Your task to perform on an android device: Open Youtube and go to "Your channel" Image 0: 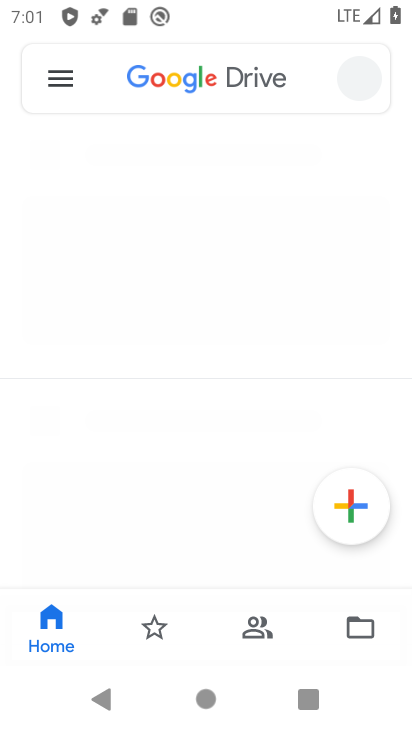
Step 0: press home button
Your task to perform on an android device: Open Youtube and go to "Your channel" Image 1: 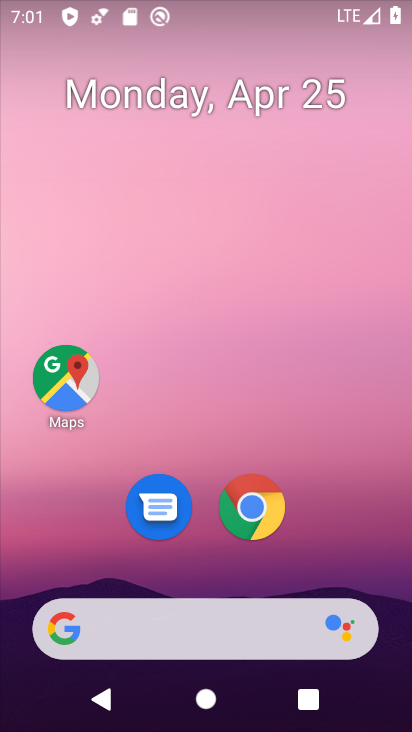
Step 1: drag from (342, 519) to (261, 61)
Your task to perform on an android device: Open Youtube and go to "Your channel" Image 2: 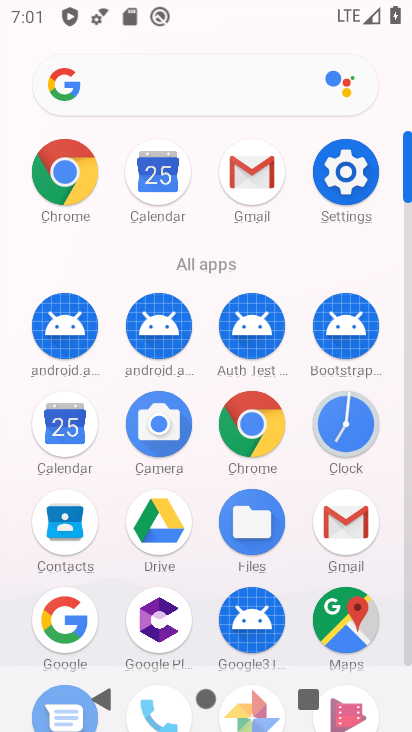
Step 2: drag from (408, 174) to (409, 714)
Your task to perform on an android device: Open Youtube and go to "Your channel" Image 3: 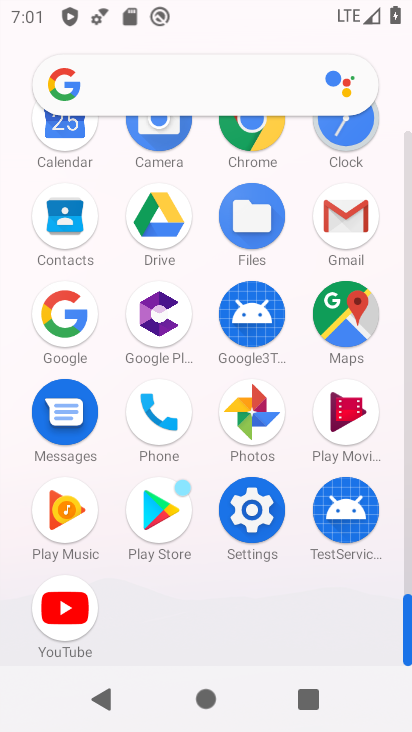
Step 3: click (62, 612)
Your task to perform on an android device: Open Youtube and go to "Your channel" Image 4: 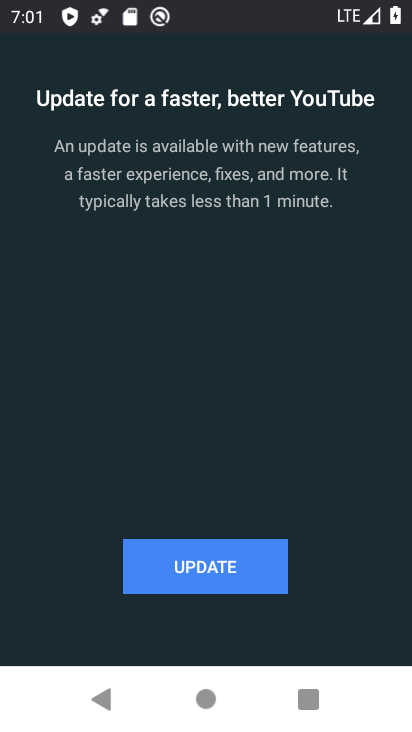
Step 4: click (211, 582)
Your task to perform on an android device: Open Youtube and go to "Your channel" Image 5: 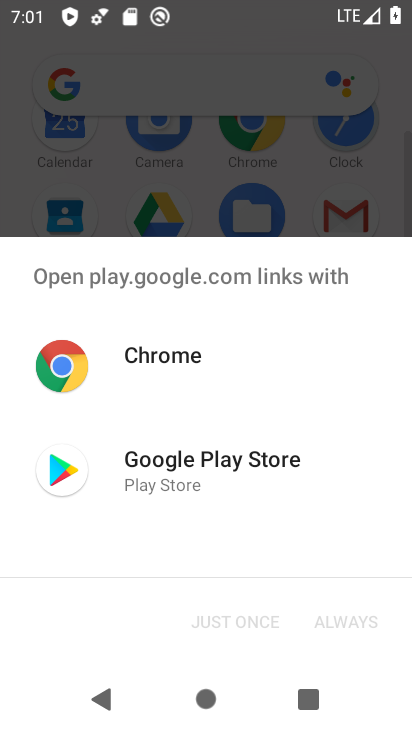
Step 5: click (172, 489)
Your task to perform on an android device: Open Youtube and go to "Your channel" Image 6: 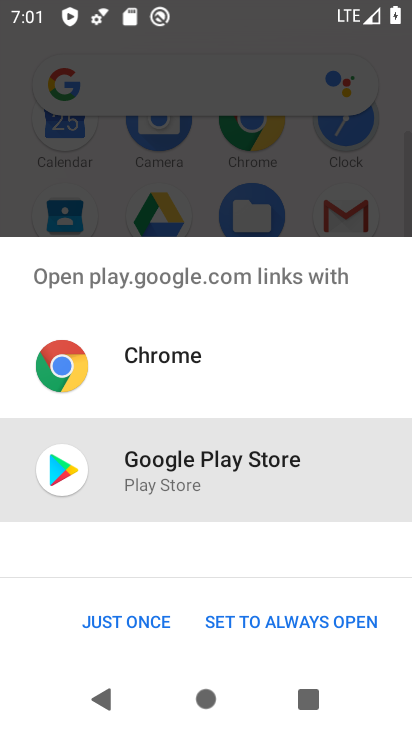
Step 6: click (145, 613)
Your task to perform on an android device: Open Youtube and go to "Your channel" Image 7: 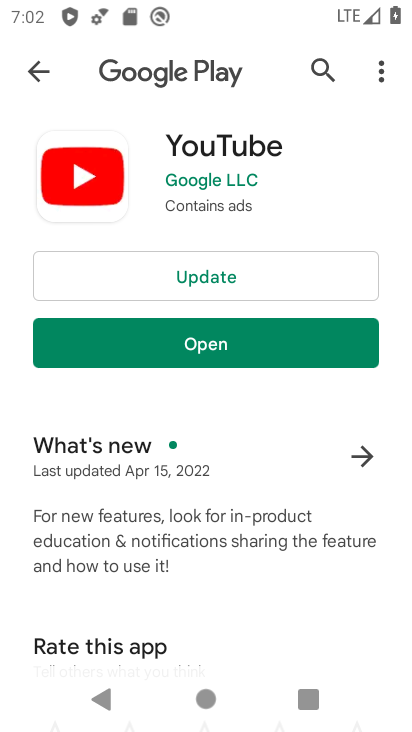
Step 7: click (184, 262)
Your task to perform on an android device: Open Youtube and go to "Your channel" Image 8: 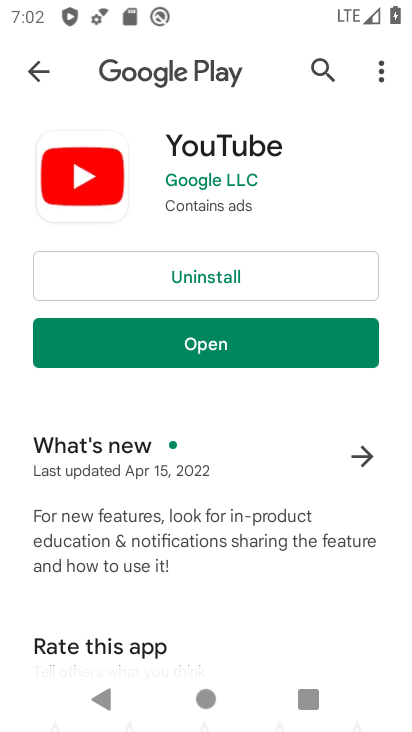
Step 8: click (191, 345)
Your task to perform on an android device: Open Youtube and go to "Your channel" Image 9: 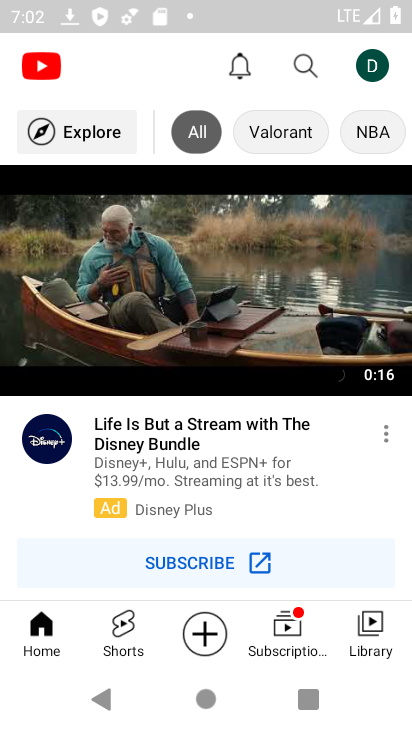
Step 9: click (369, 67)
Your task to perform on an android device: Open Youtube and go to "Your channel" Image 10: 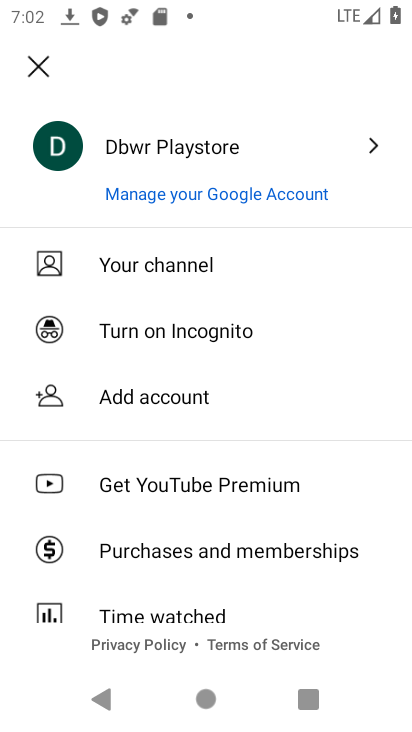
Step 10: click (134, 272)
Your task to perform on an android device: Open Youtube and go to "Your channel" Image 11: 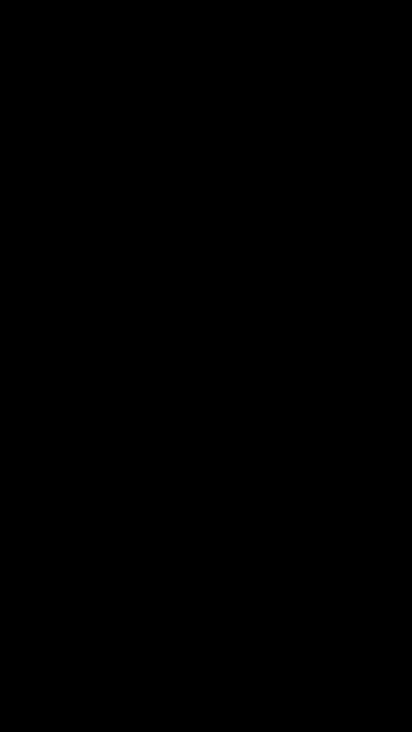
Step 11: press back button
Your task to perform on an android device: Open Youtube and go to "Your channel" Image 12: 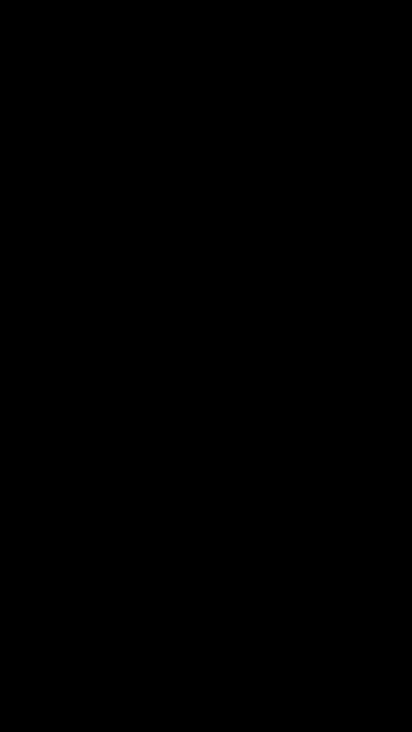
Step 12: press back button
Your task to perform on an android device: Open Youtube and go to "Your channel" Image 13: 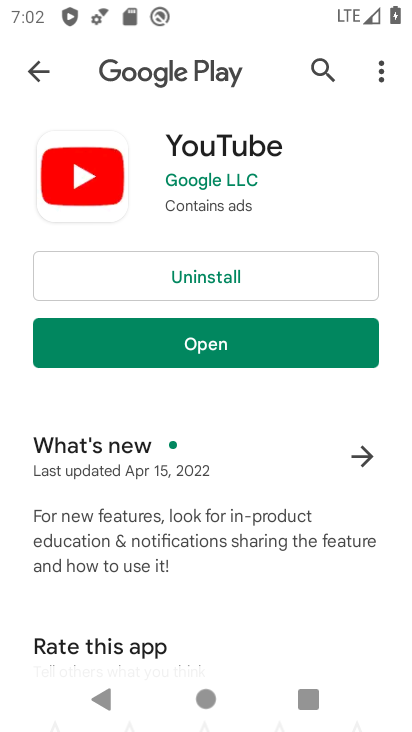
Step 13: click (199, 330)
Your task to perform on an android device: Open Youtube and go to "Your channel" Image 14: 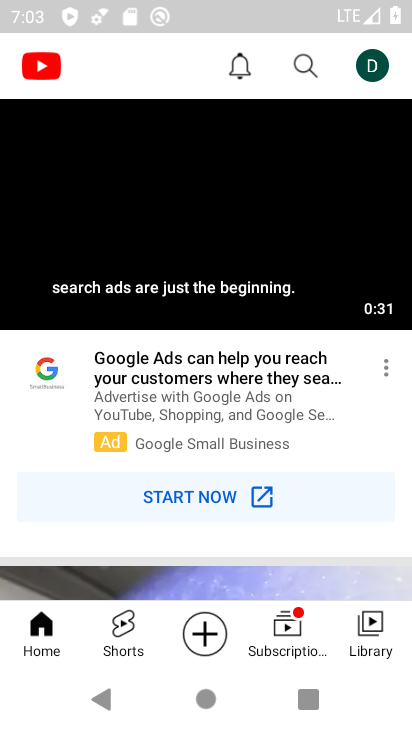
Step 14: click (364, 75)
Your task to perform on an android device: Open Youtube and go to "Your channel" Image 15: 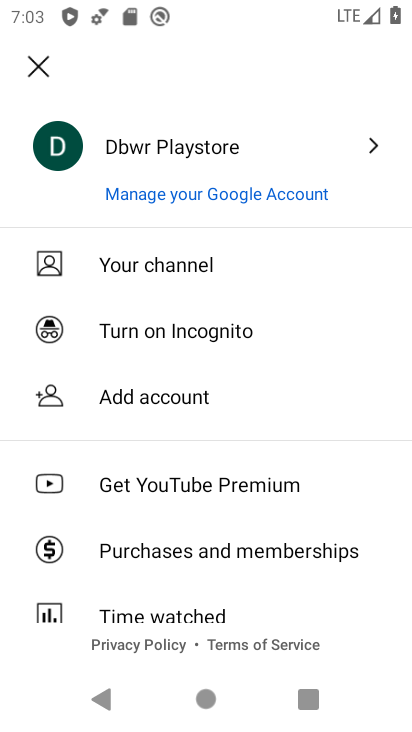
Step 15: click (117, 262)
Your task to perform on an android device: Open Youtube and go to "Your channel" Image 16: 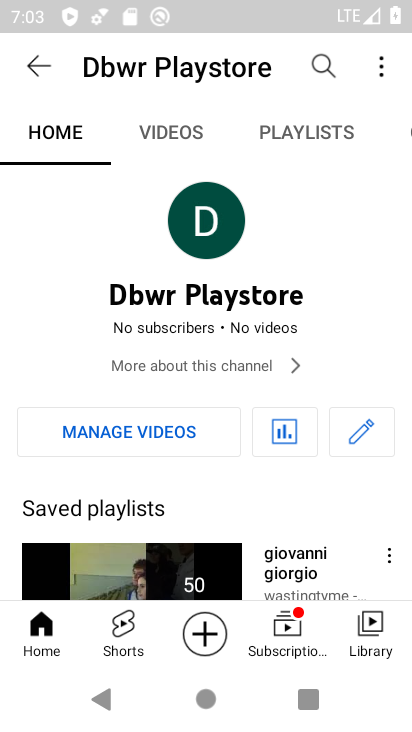
Step 16: task complete